Your task to perform on an android device: Go to calendar. Show me events next week Image 0: 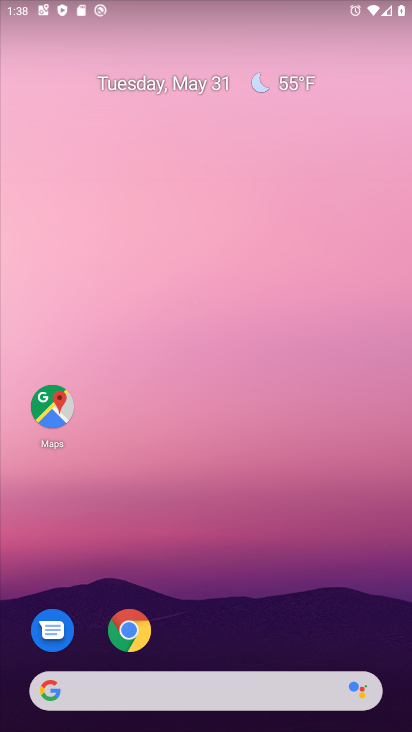
Step 0: press home button
Your task to perform on an android device: Go to calendar. Show me events next week Image 1: 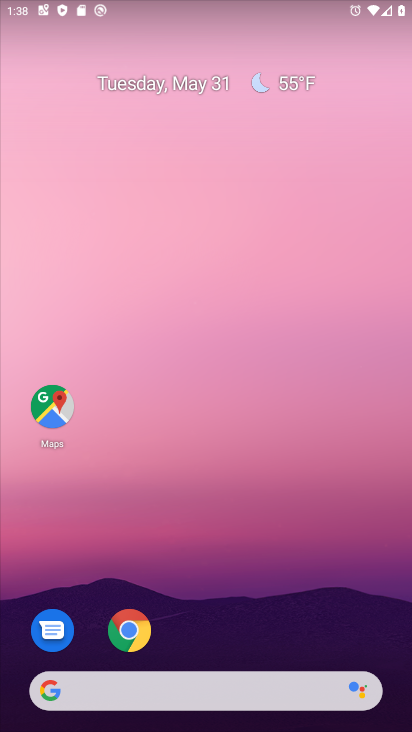
Step 1: drag from (199, 673) to (241, 305)
Your task to perform on an android device: Go to calendar. Show me events next week Image 2: 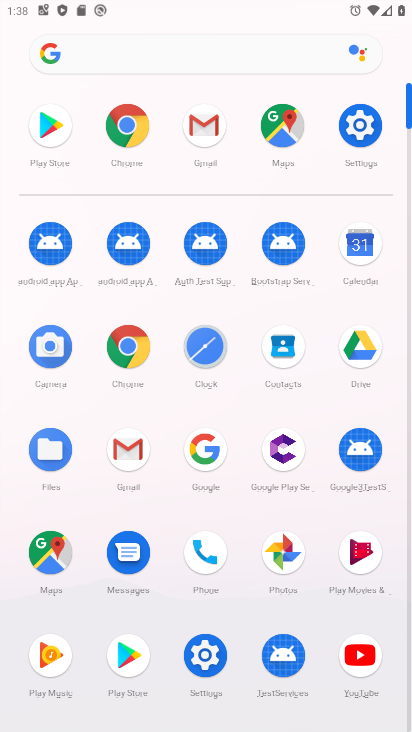
Step 2: click (362, 248)
Your task to perform on an android device: Go to calendar. Show me events next week Image 3: 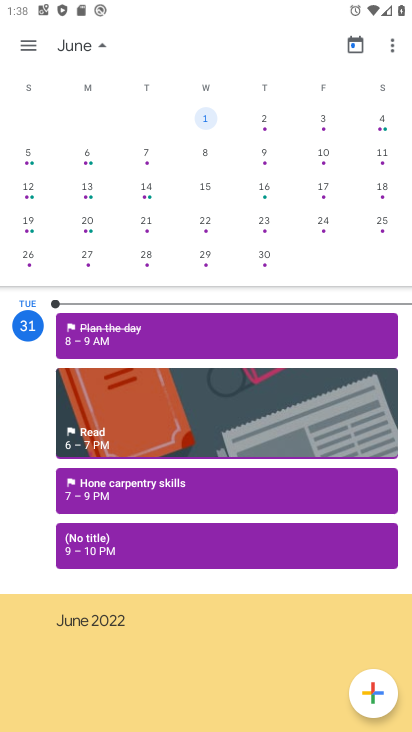
Step 3: click (29, 151)
Your task to perform on an android device: Go to calendar. Show me events next week Image 4: 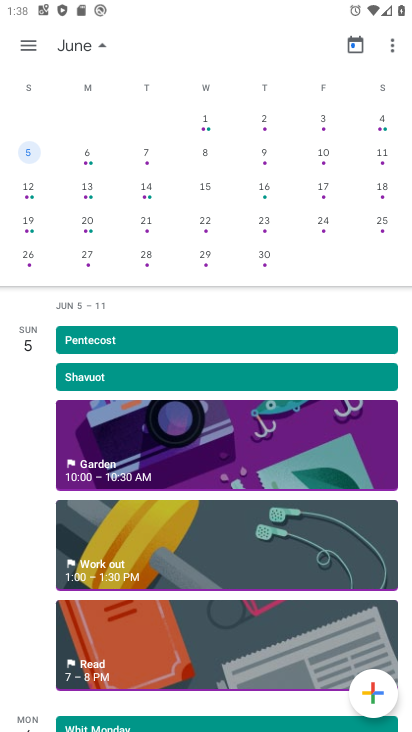
Step 4: task complete